Your task to perform on an android device: Open Google Image 0: 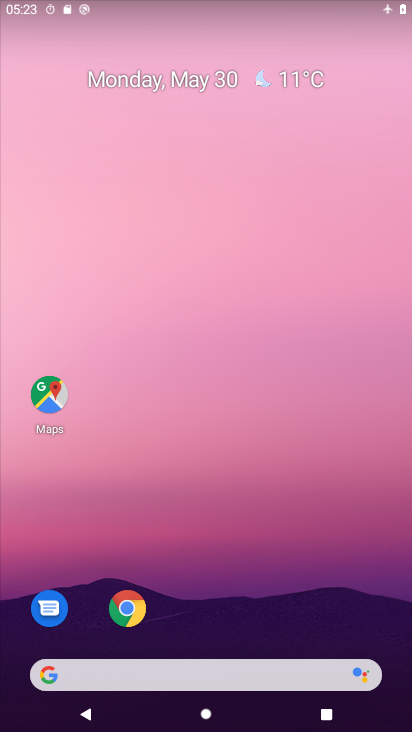
Step 0: drag from (262, 559) to (134, 0)
Your task to perform on an android device: Open Google Image 1: 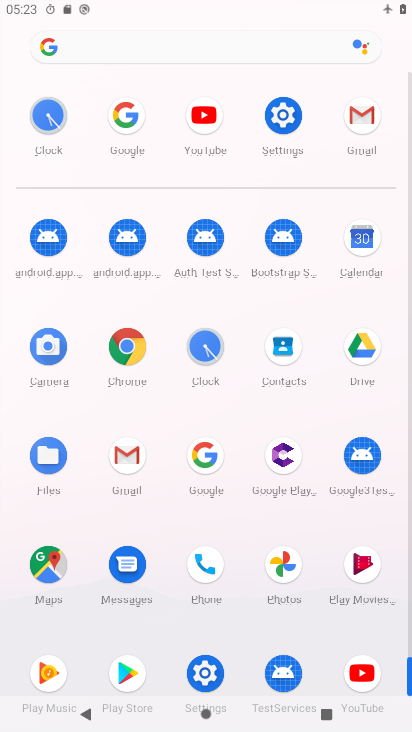
Step 1: click (197, 456)
Your task to perform on an android device: Open Google Image 2: 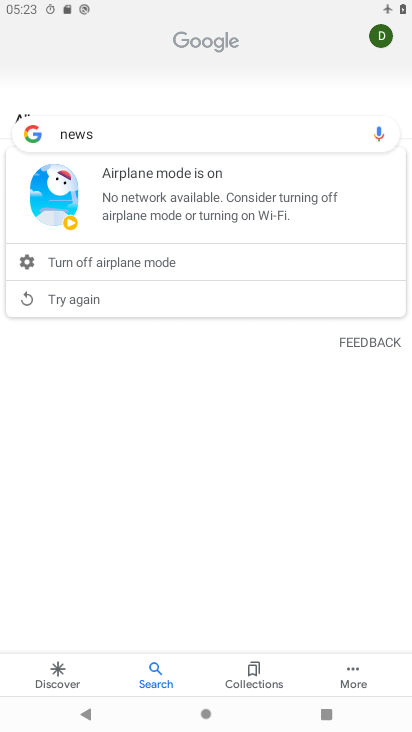
Step 2: task complete